Your task to perform on an android device: visit the assistant section in the google photos Image 0: 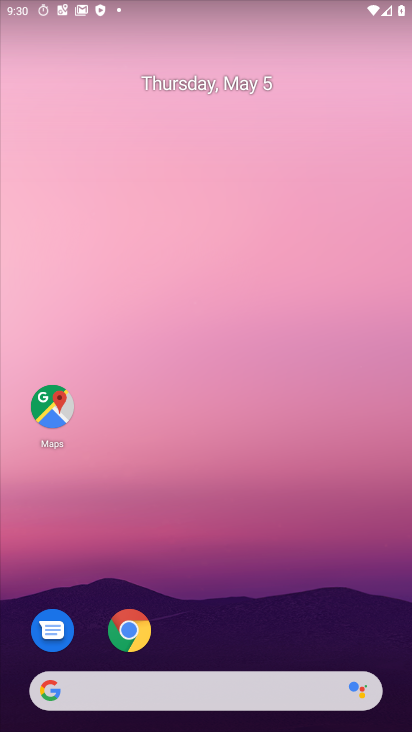
Step 0: drag from (189, 643) to (138, 151)
Your task to perform on an android device: visit the assistant section in the google photos Image 1: 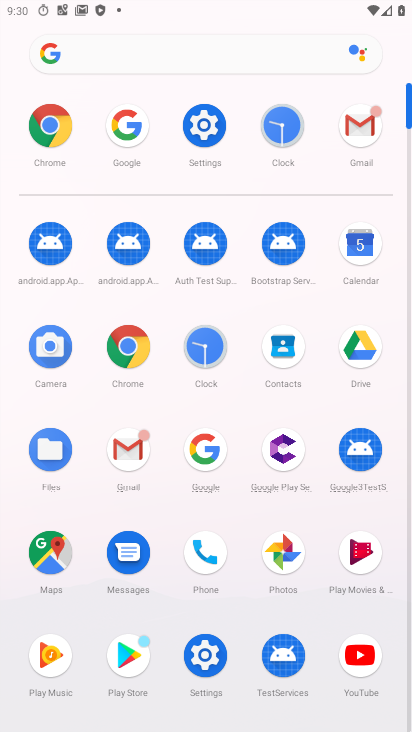
Step 1: click (294, 553)
Your task to perform on an android device: visit the assistant section in the google photos Image 2: 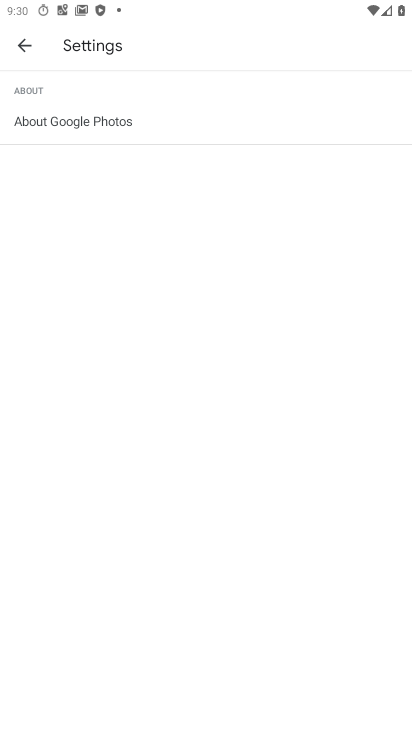
Step 2: press back button
Your task to perform on an android device: visit the assistant section in the google photos Image 3: 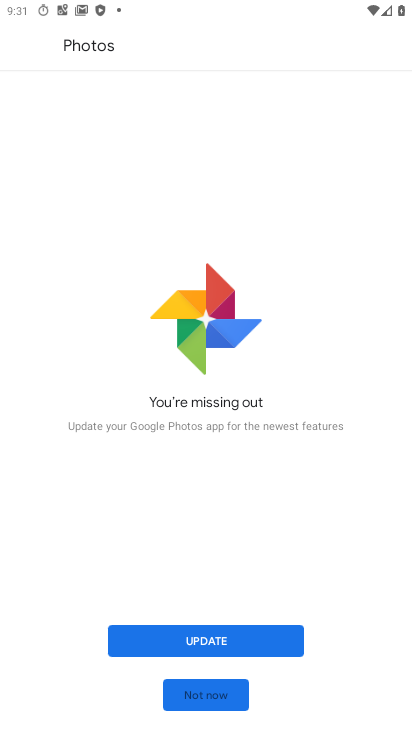
Step 3: click (220, 687)
Your task to perform on an android device: visit the assistant section in the google photos Image 4: 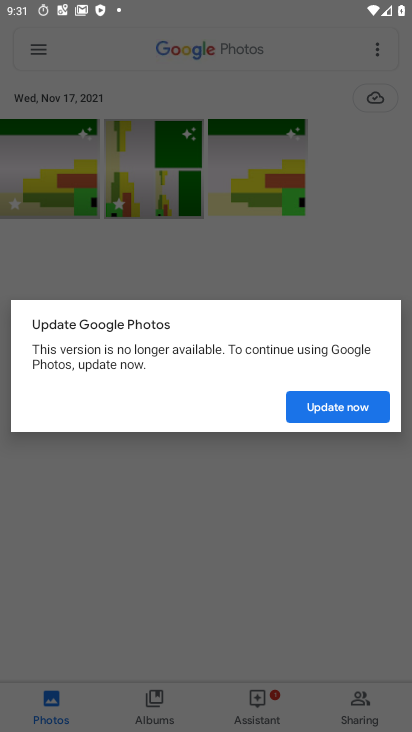
Step 4: click (333, 414)
Your task to perform on an android device: visit the assistant section in the google photos Image 5: 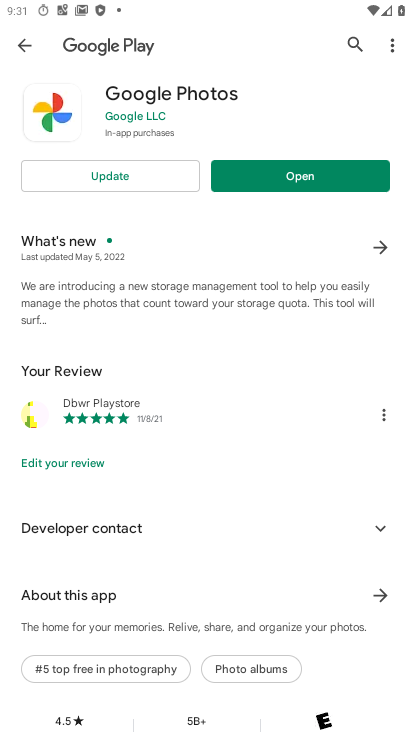
Step 5: click (152, 180)
Your task to perform on an android device: visit the assistant section in the google photos Image 6: 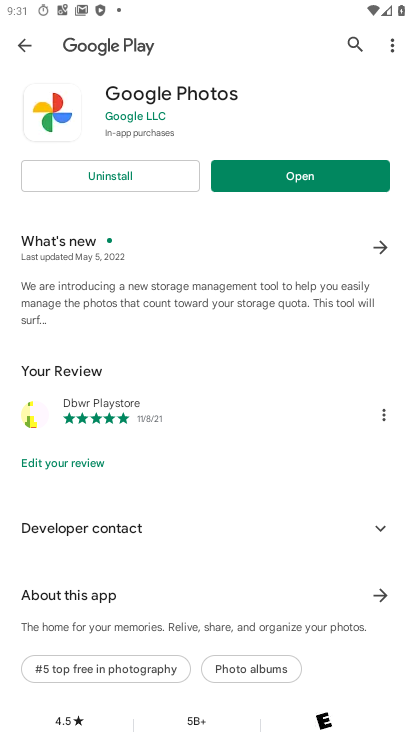
Step 6: click (309, 172)
Your task to perform on an android device: visit the assistant section in the google photos Image 7: 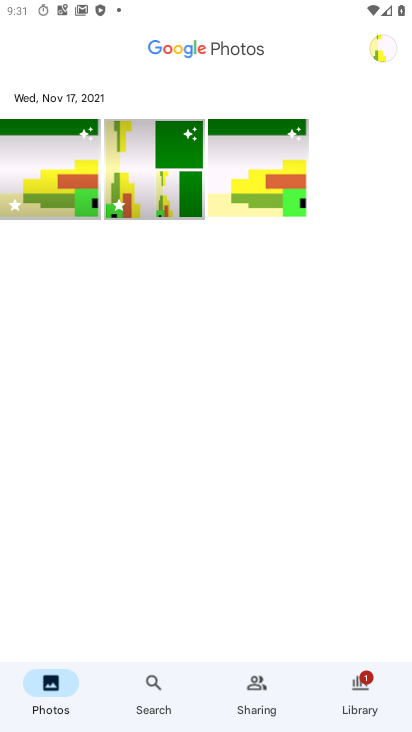
Step 7: task complete